Your task to perform on an android device: Show me recent news Image 0: 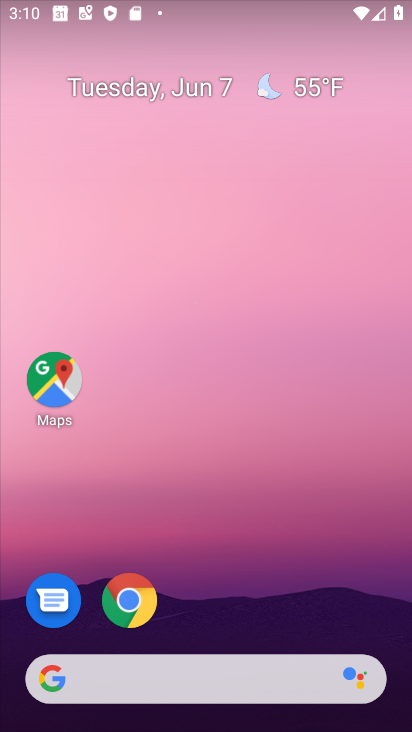
Step 0: click (203, 680)
Your task to perform on an android device: Show me recent news Image 1: 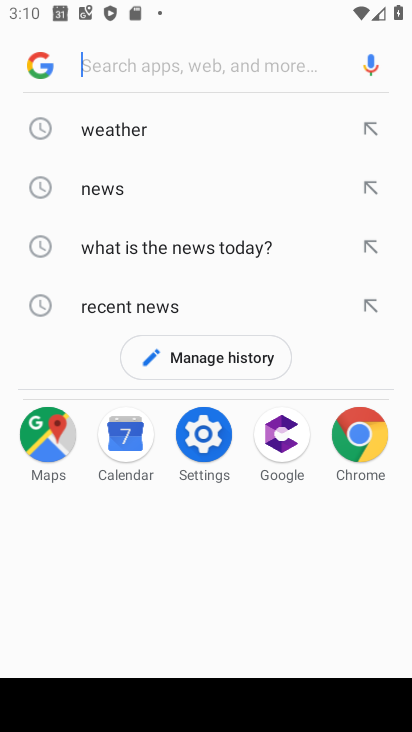
Step 1: click (165, 308)
Your task to perform on an android device: Show me recent news Image 2: 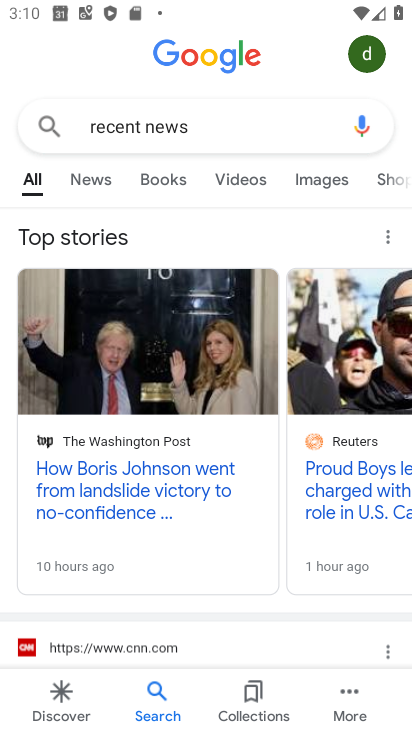
Step 2: task complete